Your task to perform on an android device: Go to Yahoo.com Image 0: 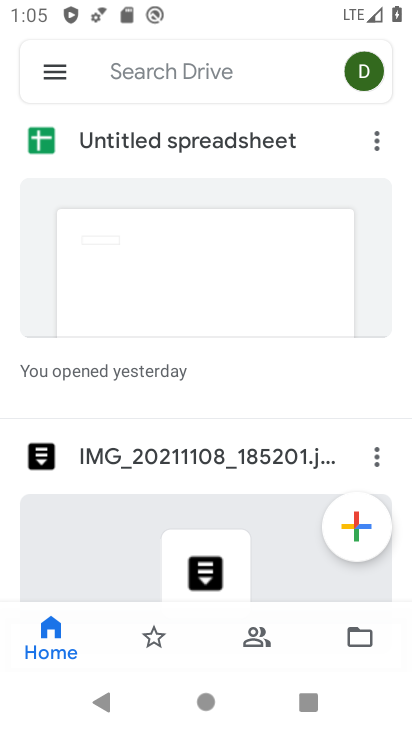
Step 0: type "yahoo.com"
Your task to perform on an android device: Go to Yahoo.com Image 1: 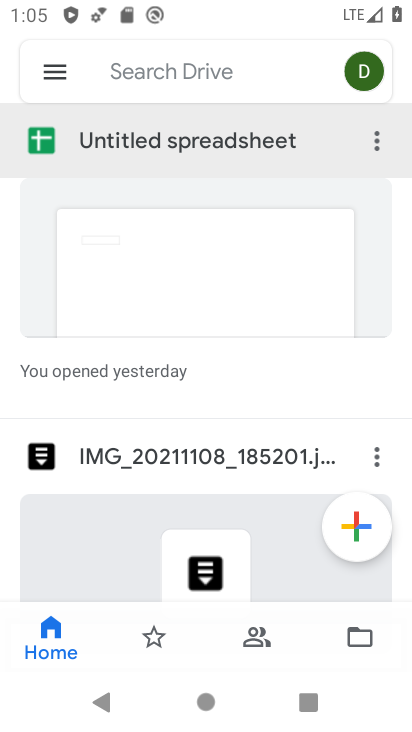
Step 1: press home button
Your task to perform on an android device: Go to Yahoo.com Image 2: 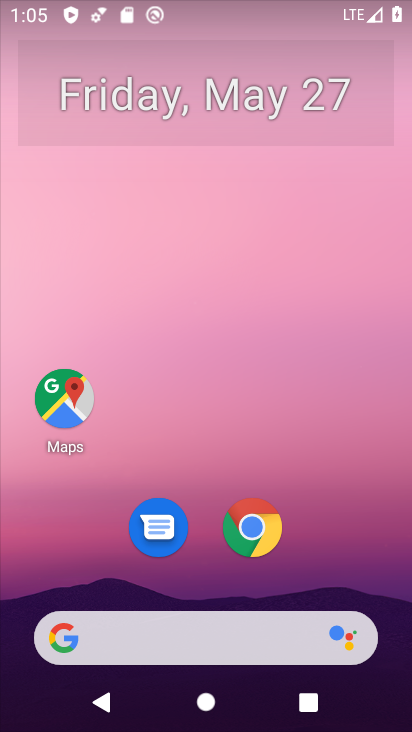
Step 2: click (255, 637)
Your task to perform on an android device: Go to Yahoo.com Image 3: 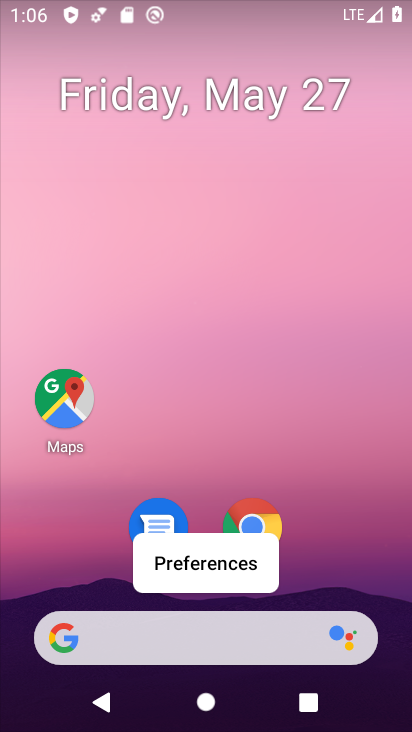
Step 3: type "yahoo.com"
Your task to perform on an android device: Go to Yahoo.com Image 4: 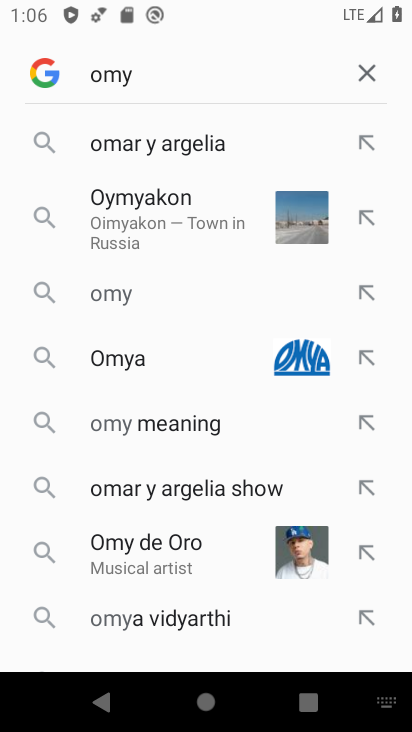
Step 4: click (372, 70)
Your task to perform on an android device: Go to Yahoo.com Image 5: 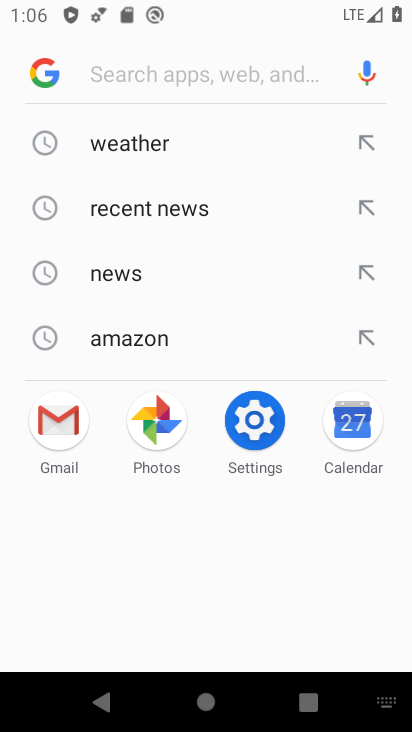
Step 5: type "yahoo.com"
Your task to perform on an android device: Go to Yahoo.com Image 6: 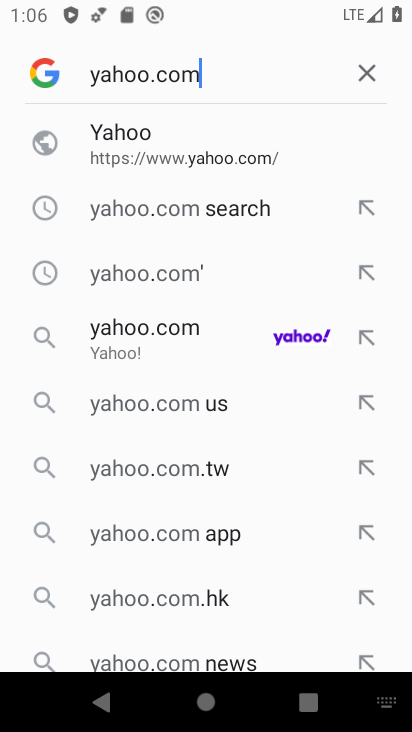
Step 6: click (261, 157)
Your task to perform on an android device: Go to Yahoo.com Image 7: 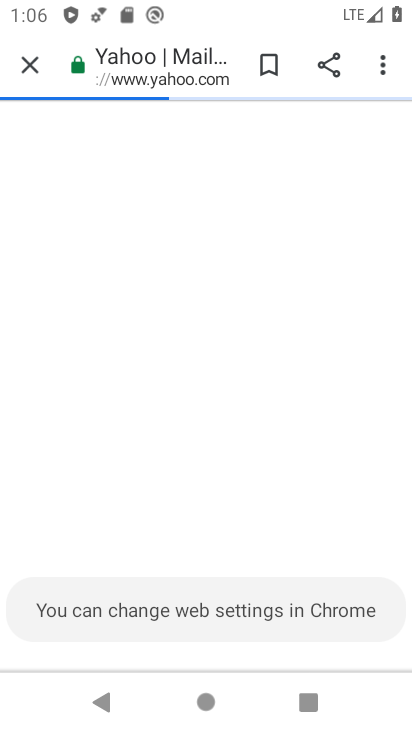
Step 7: task complete